Your task to perform on an android device: Go to settings Image 0: 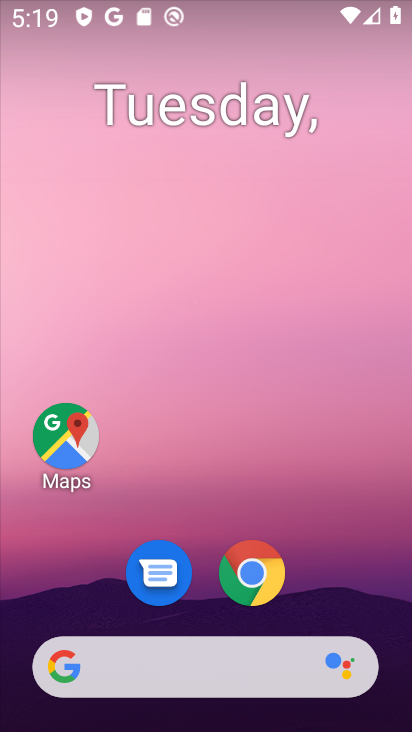
Step 0: drag from (328, 574) to (270, 35)
Your task to perform on an android device: Go to settings Image 1: 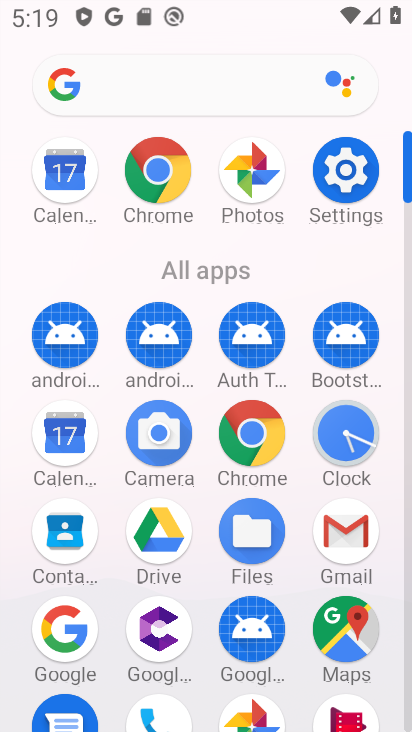
Step 1: click (347, 164)
Your task to perform on an android device: Go to settings Image 2: 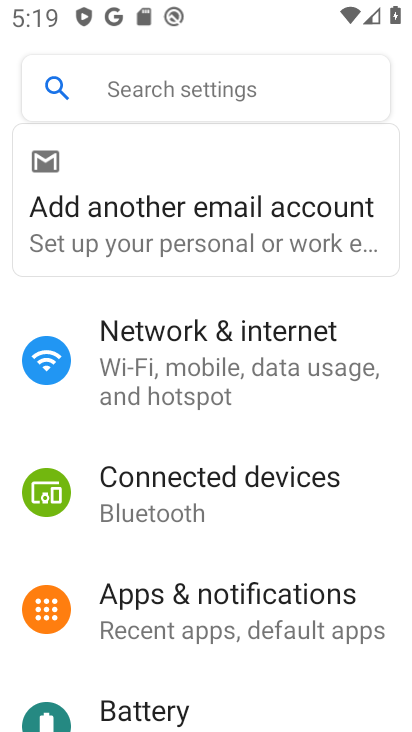
Step 2: task complete